Your task to perform on an android device: turn on wifi Image 0: 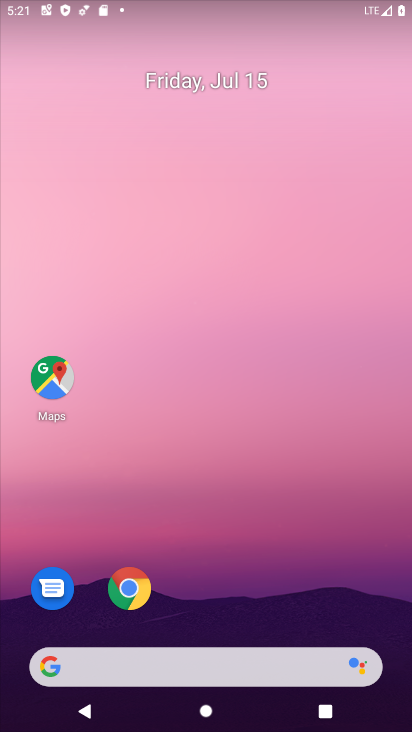
Step 0: drag from (225, 632) to (185, 113)
Your task to perform on an android device: turn on wifi Image 1: 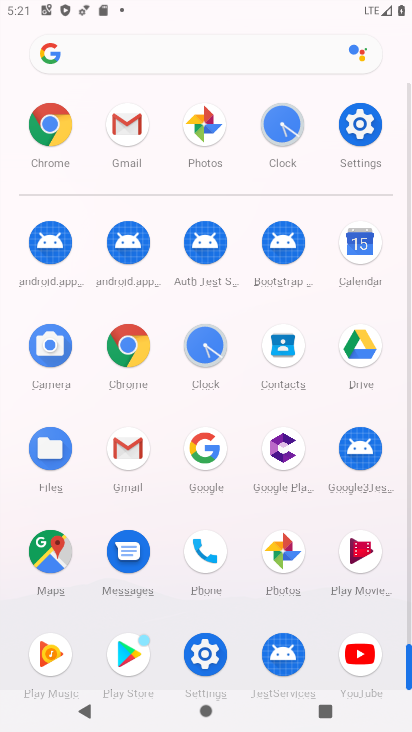
Step 1: click (349, 126)
Your task to perform on an android device: turn on wifi Image 2: 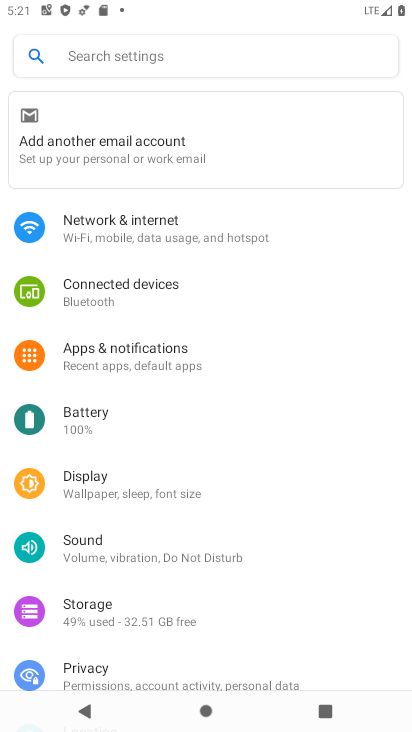
Step 2: click (116, 232)
Your task to perform on an android device: turn on wifi Image 3: 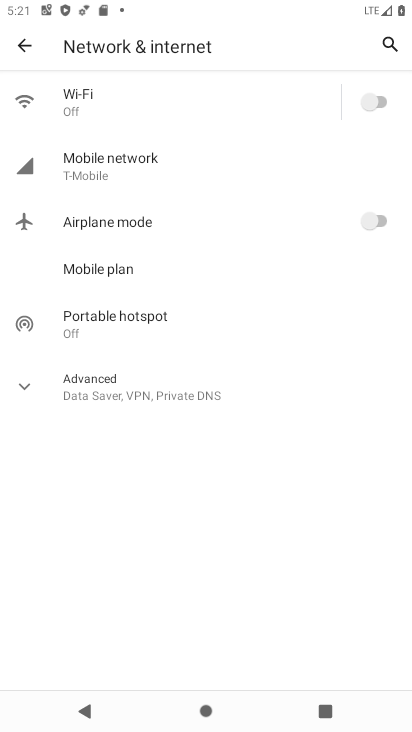
Step 3: click (384, 101)
Your task to perform on an android device: turn on wifi Image 4: 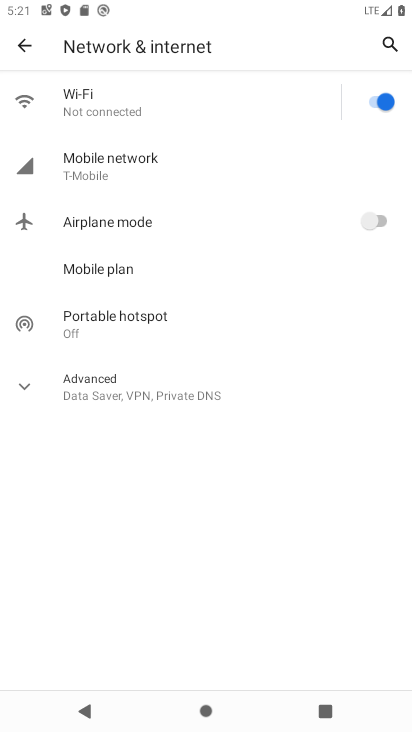
Step 4: task complete